Your task to perform on an android device: How do I get to the nearest Chipotle? Image 0: 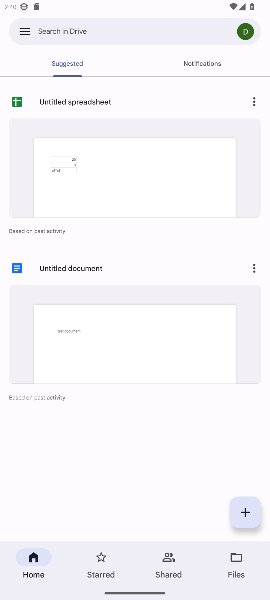
Step 0: press home button
Your task to perform on an android device: How do I get to the nearest Chipotle? Image 1: 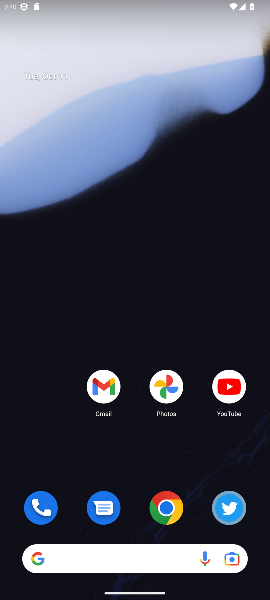
Step 1: click (175, 508)
Your task to perform on an android device: How do I get to the nearest Chipotle? Image 2: 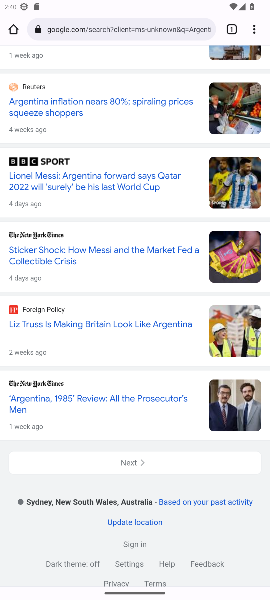
Step 2: click (140, 32)
Your task to perform on an android device: How do I get to the nearest Chipotle? Image 3: 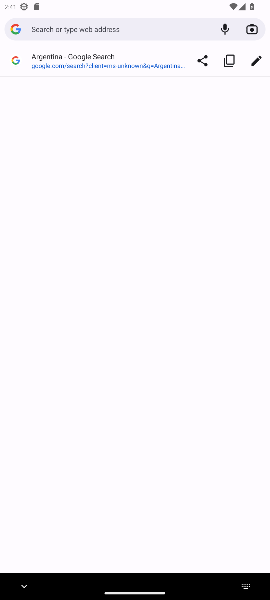
Step 3: click (170, 32)
Your task to perform on an android device: How do I get to the nearest Chipotle? Image 4: 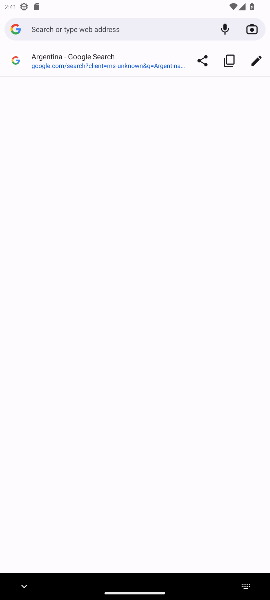
Step 4: type "nearest Chipotle"
Your task to perform on an android device: How do I get to the nearest Chipotle? Image 5: 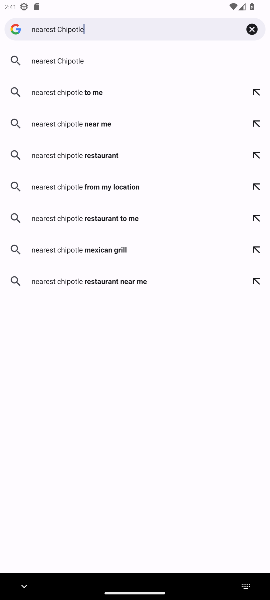
Step 5: click (71, 66)
Your task to perform on an android device: How do I get to the nearest Chipotle? Image 6: 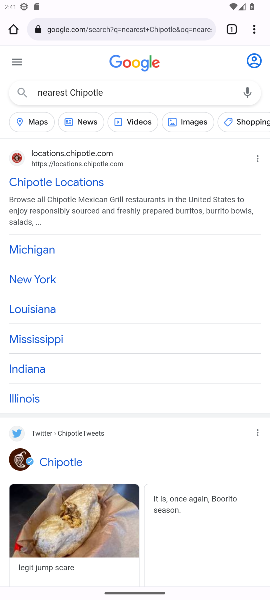
Step 6: drag from (136, 452) to (155, 112)
Your task to perform on an android device: How do I get to the nearest Chipotle? Image 7: 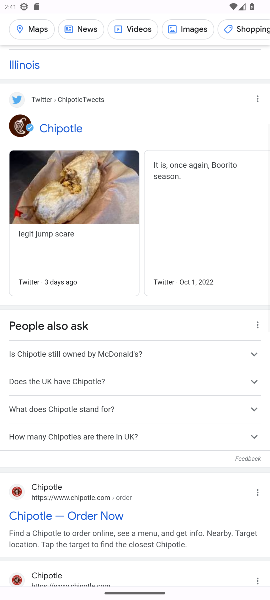
Step 7: drag from (173, 468) to (258, 529)
Your task to perform on an android device: How do I get to the nearest Chipotle? Image 8: 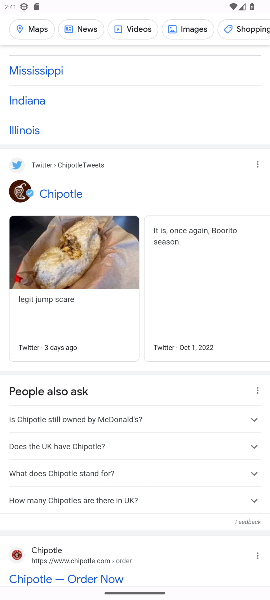
Step 8: drag from (180, 166) to (233, 336)
Your task to perform on an android device: How do I get to the nearest Chipotle? Image 9: 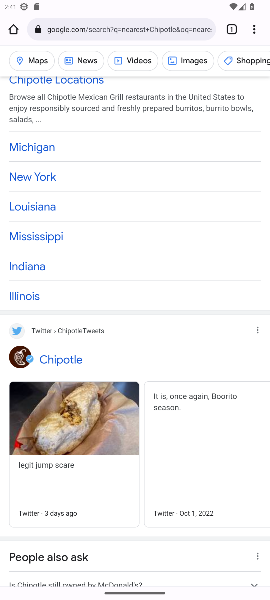
Step 9: drag from (120, 142) to (145, 280)
Your task to perform on an android device: How do I get to the nearest Chipotle? Image 10: 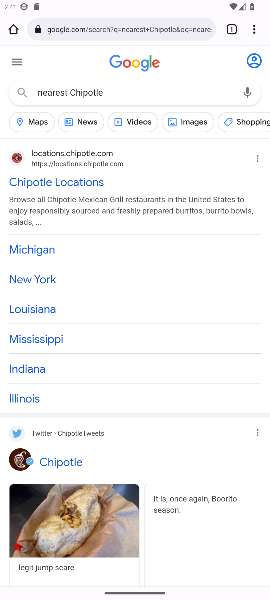
Step 10: click (34, 127)
Your task to perform on an android device: How do I get to the nearest Chipotle? Image 11: 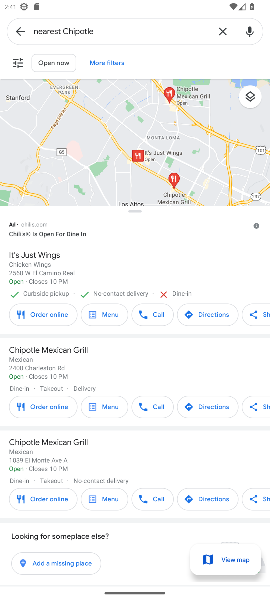
Step 11: task complete